Your task to perform on an android device: turn on notifications settings in the gmail app Image 0: 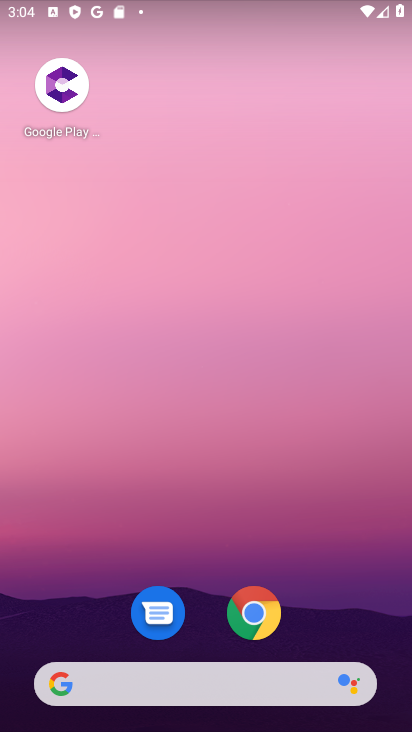
Step 0: drag from (373, 625) to (358, 89)
Your task to perform on an android device: turn on notifications settings in the gmail app Image 1: 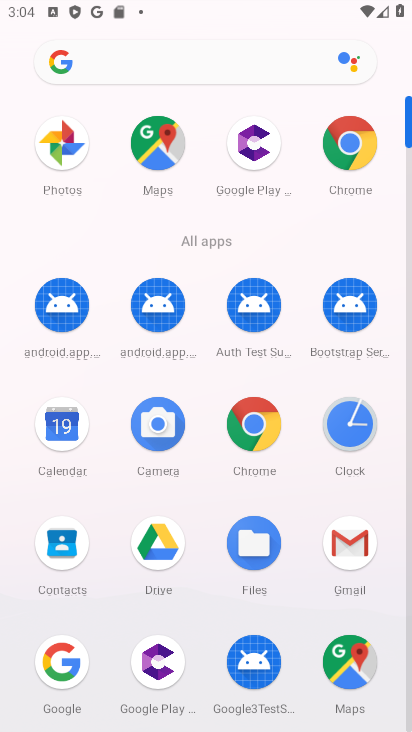
Step 1: click (353, 558)
Your task to perform on an android device: turn on notifications settings in the gmail app Image 2: 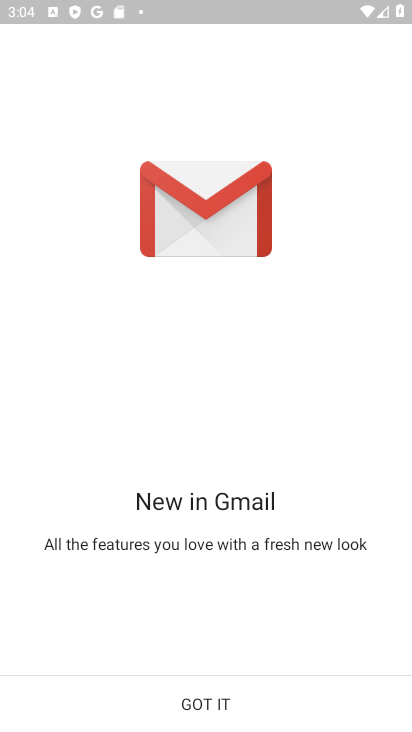
Step 2: click (236, 685)
Your task to perform on an android device: turn on notifications settings in the gmail app Image 3: 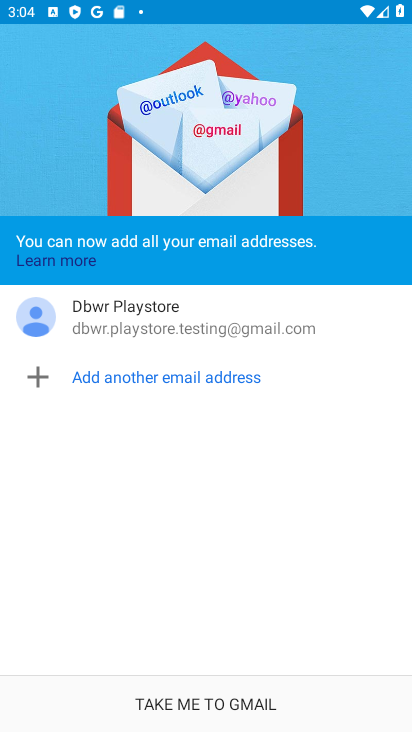
Step 3: click (225, 701)
Your task to perform on an android device: turn on notifications settings in the gmail app Image 4: 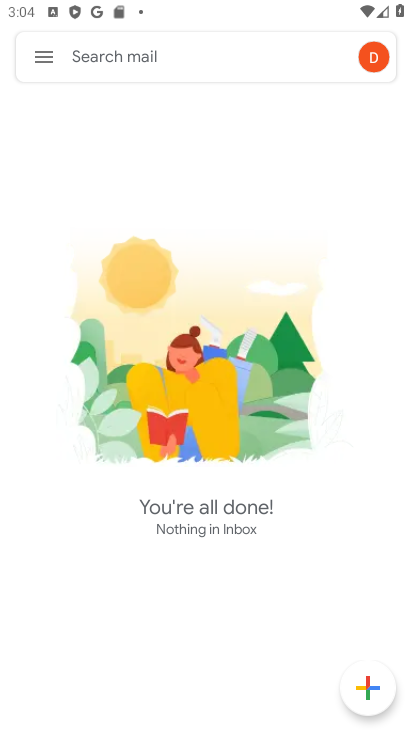
Step 4: click (47, 53)
Your task to perform on an android device: turn on notifications settings in the gmail app Image 5: 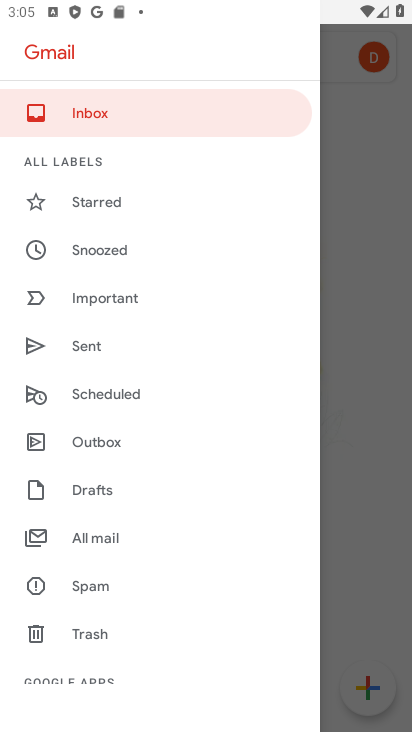
Step 5: press home button
Your task to perform on an android device: turn on notifications settings in the gmail app Image 6: 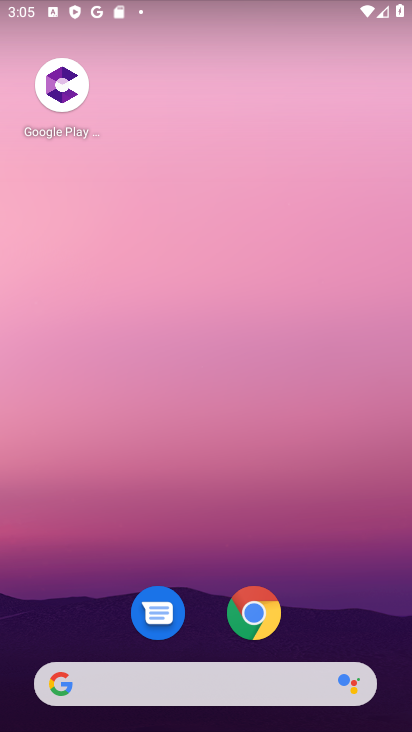
Step 6: drag from (348, 626) to (271, 125)
Your task to perform on an android device: turn on notifications settings in the gmail app Image 7: 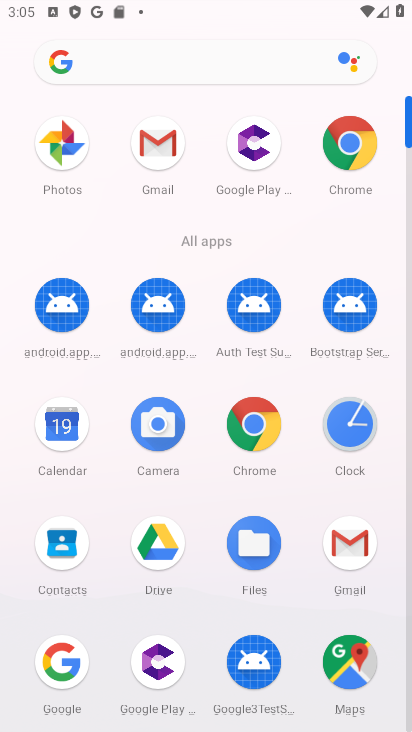
Step 7: click (355, 540)
Your task to perform on an android device: turn on notifications settings in the gmail app Image 8: 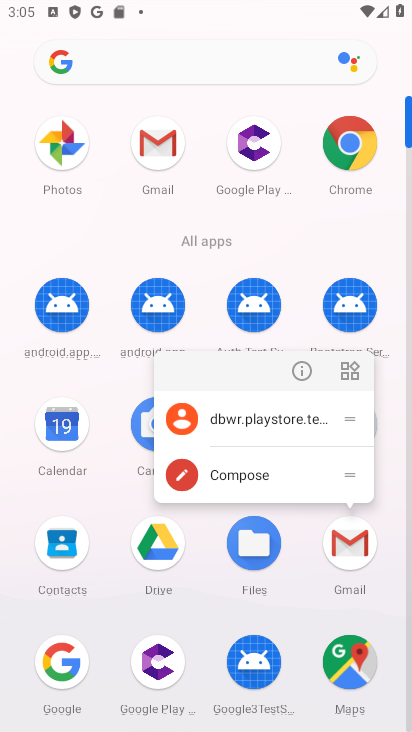
Step 8: click (303, 370)
Your task to perform on an android device: turn on notifications settings in the gmail app Image 9: 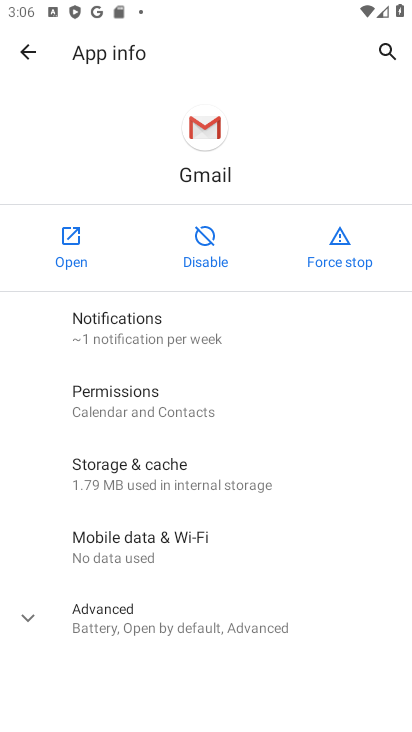
Step 9: click (150, 344)
Your task to perform on an android device: turn on notifications settings in the gmail app Image 10: 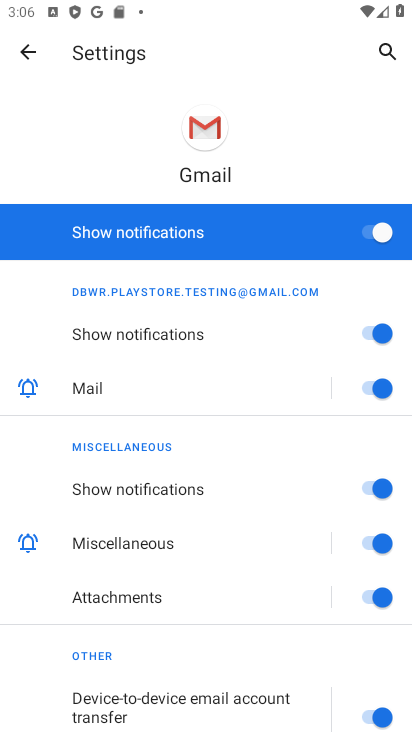
Step 10: task complete